Your task to perform on an android device: turn off javascript in the chrome app Image 0: 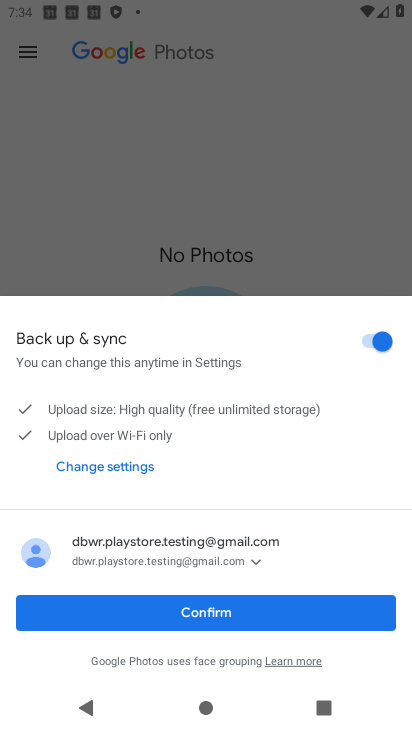
Step 0: press home button
Your task to perform on an android device: turn off javascript in the chrome app Image 1: 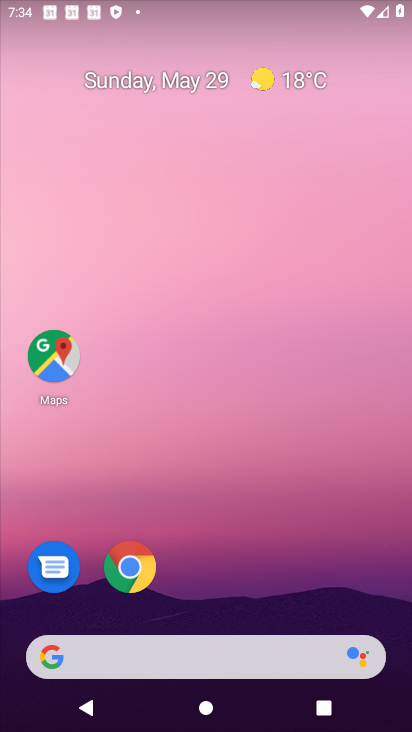
Step 1: click (131, 567)
Your task to perform on an android device: turn off javascript in the chrome app Image 2: 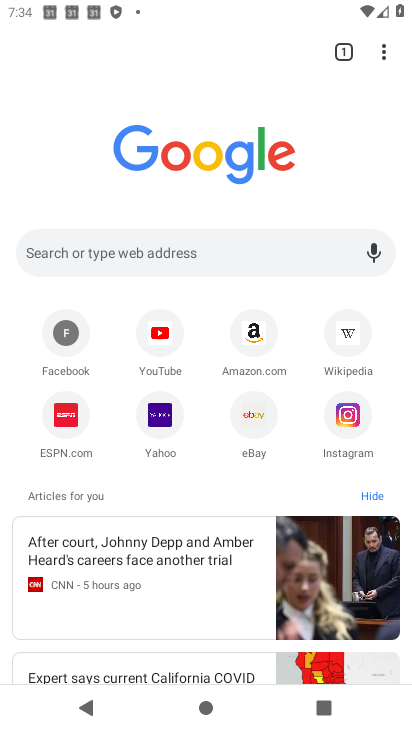
Step 2: click (385, 51)
Your task to perform on an android device: turn off javascript in the chrome app Image 3: 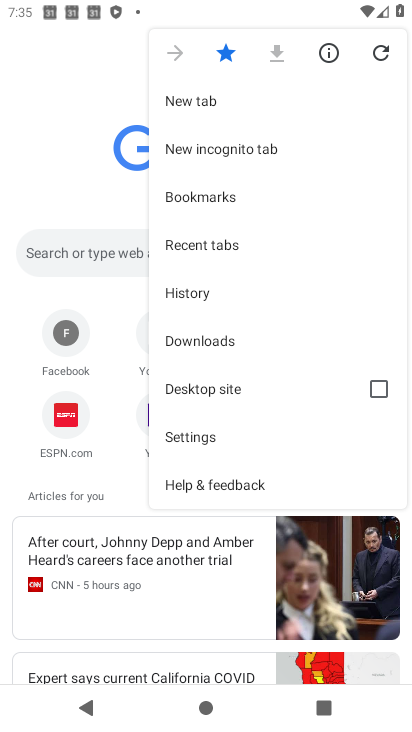
Step 3: click (197, 437)
Your task to perform on an android device: turn off javascript in the chrome app Image 4: 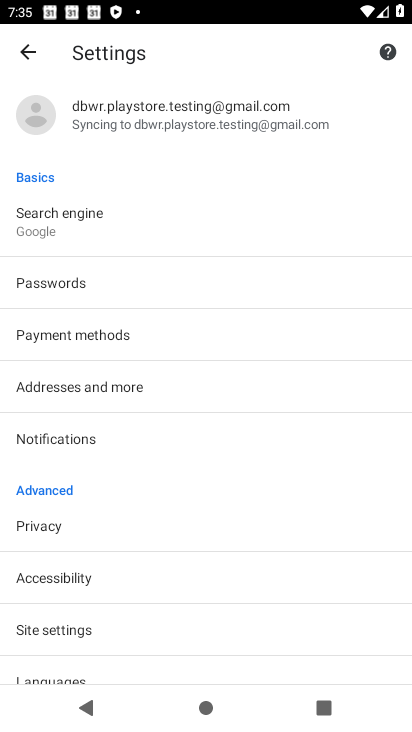
Step 4: click (84, 635)
Your task to perform on an android device: turn off javascript in the chrome app Image 5: 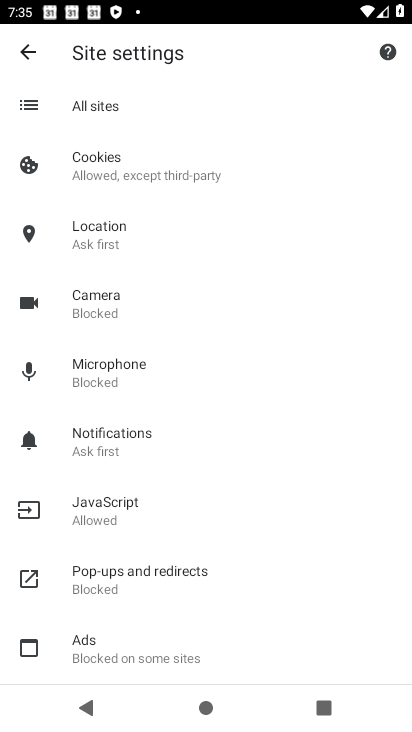
Step 5: click (144, 512)
Your task to perform on an android device: turn off javascript in the chrome app Image 6: 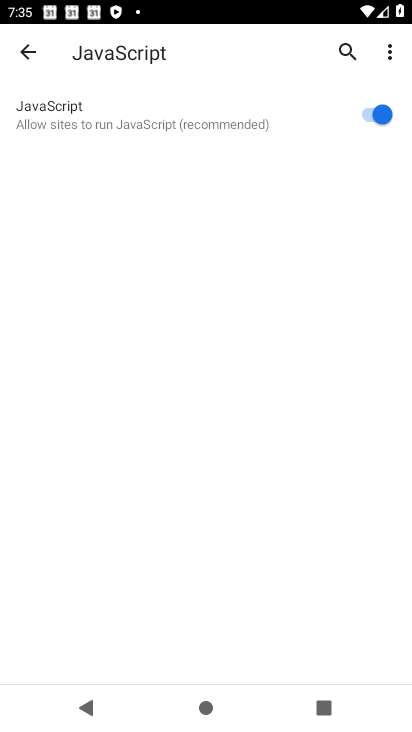
Step 6: click (377, 115)
Your task to perform on an android device: turn off javascript in the chrome app Image 7: 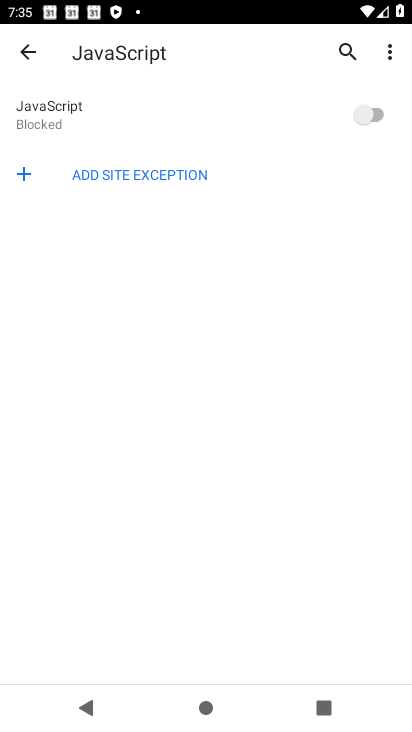
Step 7: task complete